Your task to perform on an android device: Open Google Maps and go to "Timeline" Image 0: 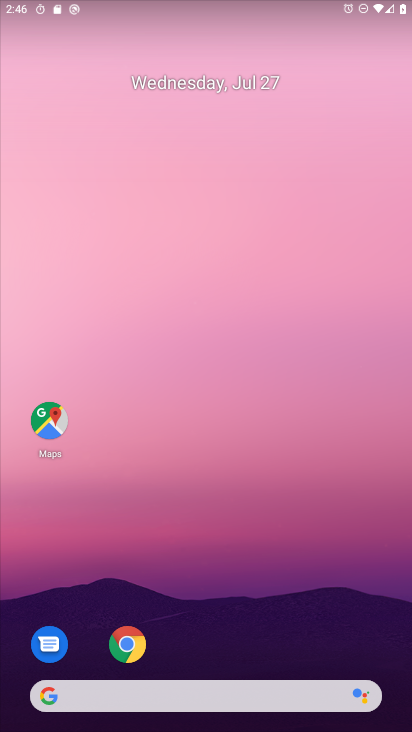
Step 0: drag from (148, 655) to (211, 261)
Your task to perform on an android device: Open Google Maps and go to "Timeline" Image 1: 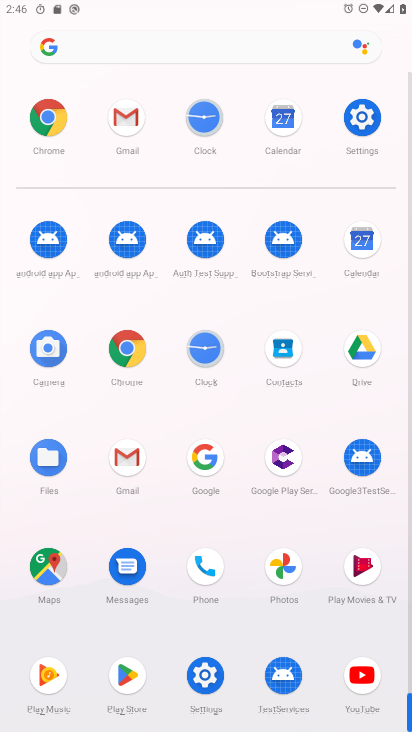
Step 1: click (44, 571)
Your task to perform on an android device: Open Google Maps and go to "Timeline" Image 2: 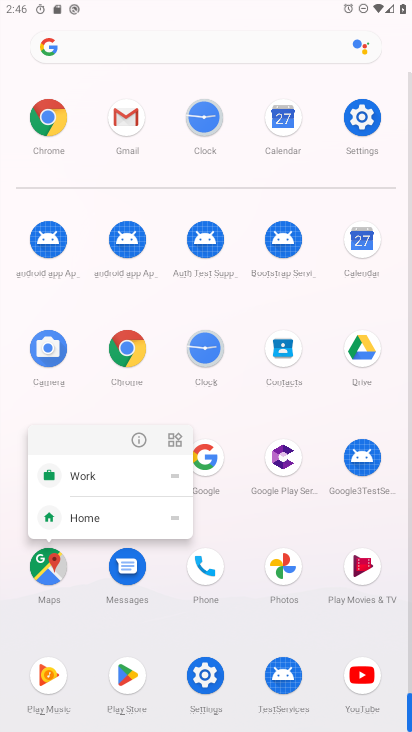
Step 2: click (132, 436)
Your task to perform on an android device: Open Google Maps and go to "Timeline" Image 3: 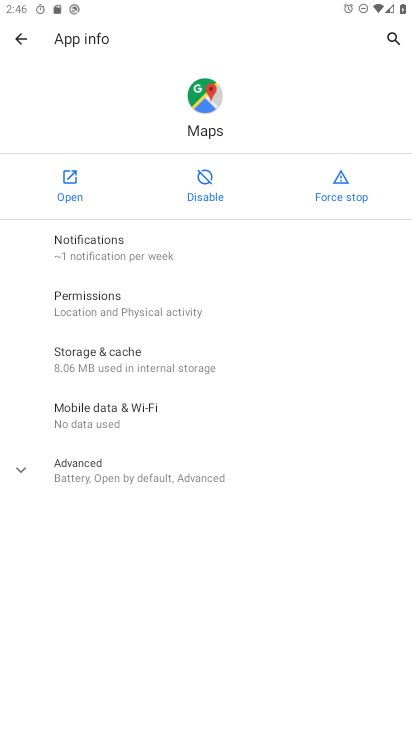
Step 3: click (57, 184)
Your task to perform on an android device: Open Google Maps and go to "Timeline" Image 4: 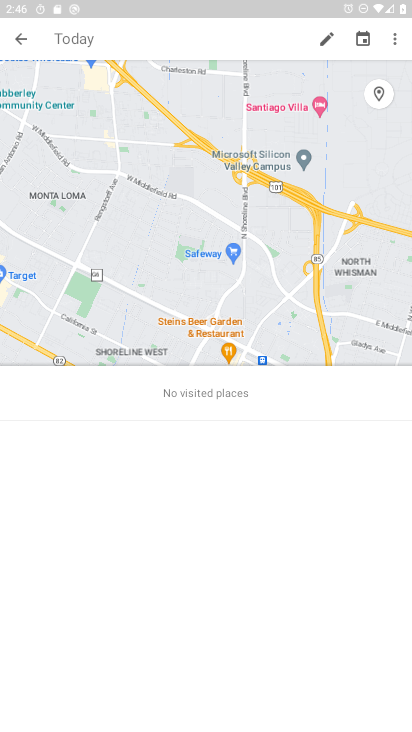
Step 4: click (21, 42)
Your task to perform on an android device: Open Google Maps and go to "Timeline" Image 5: 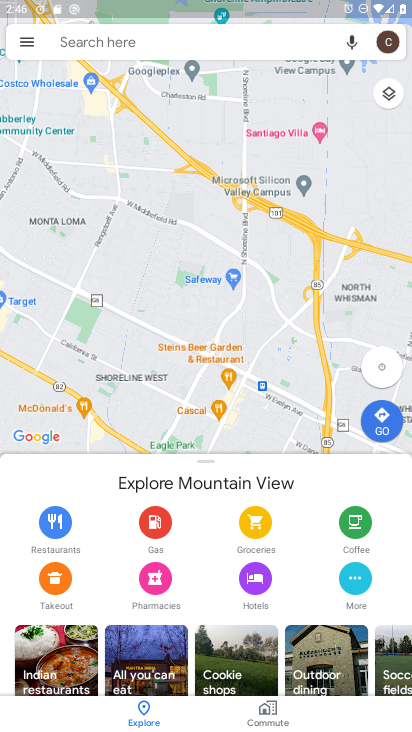
Step 5: click (14, 33)
Your task to perform on an android device: Open Google Maps and go to "Timeline" Image 6: 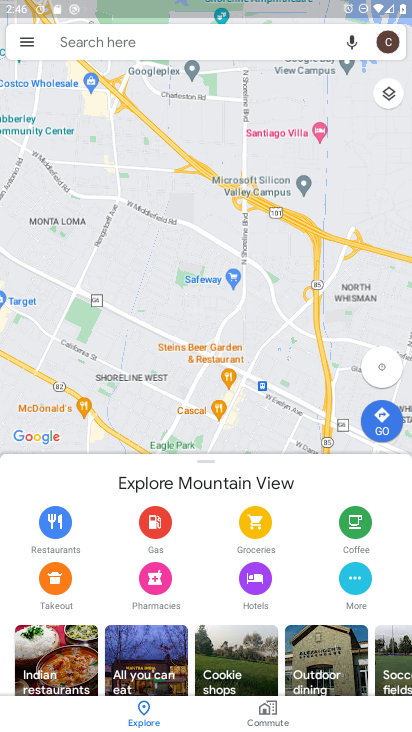
Step 6: click (25, 43)
Your task to perform on an android device: Open Google Maps and go to "Timeline" Image 7: 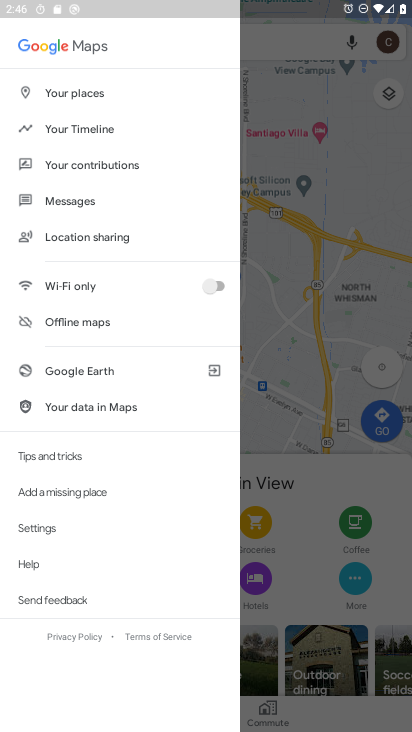
Step 7: click (92, 125)
Your task to perform on an android device: Open Google Maps and go to "Timeline" Image 8: 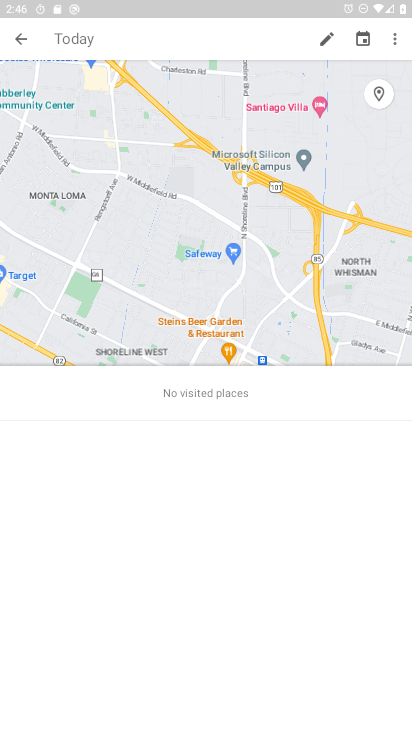
Step 8: task complete